Your task to perform on an android device: turn off improve location accuracy Image 0: 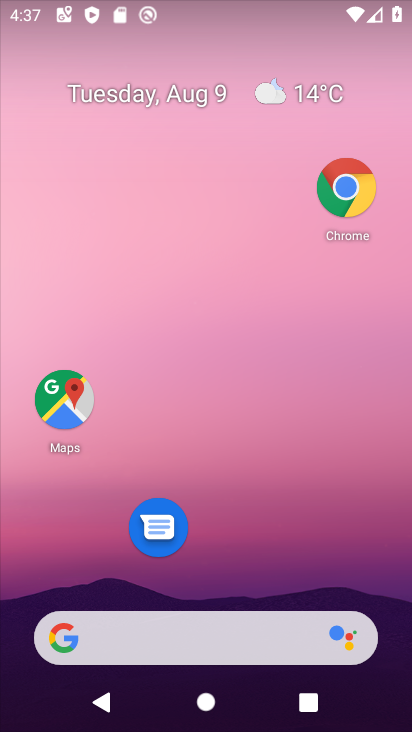
Step 0: drag from (214, 586) to (233, 235)
Your task to perform on an android device: turn off improve location accuracy Image 1: 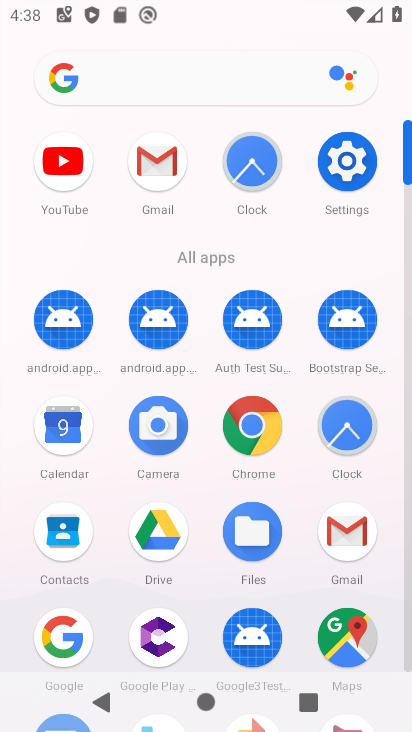
Step 1: click (233, 235)
Your task to perform on an android device: turn off improve location accuracy Image 2: 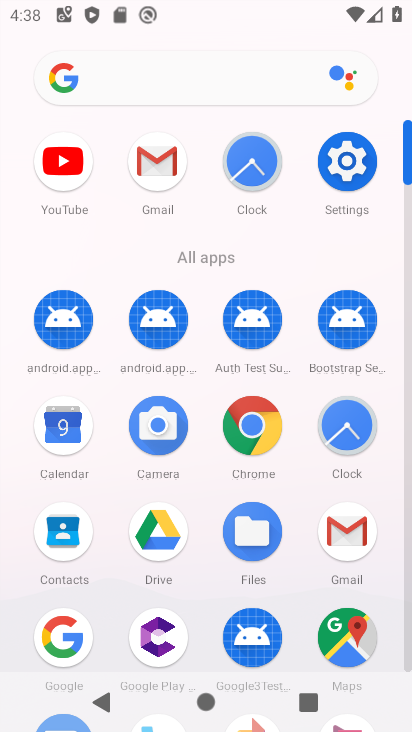
Step 2: click (362, 145)
Your task to perform on an android device: turn off improve location accuracy Image 3: 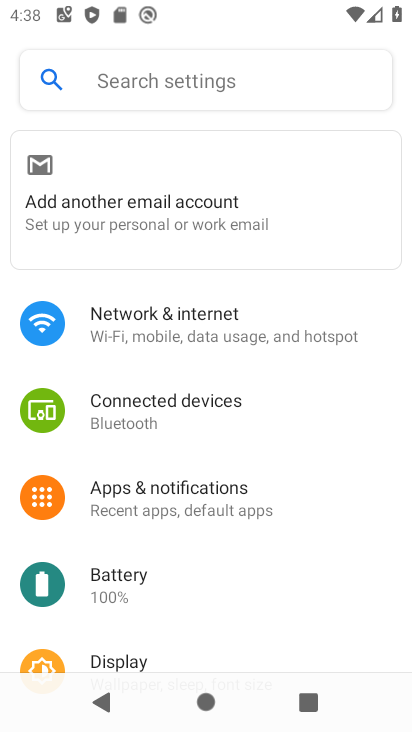
Step 3: drag from (138, 616) to (111, 187)
Your task to perform on an android device: turn off improve location accuracy Image 4: 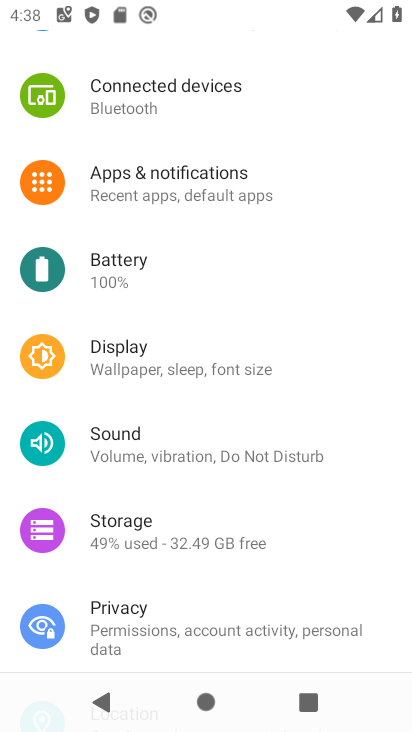
Step 4: click (247, 240)
Your task to perform on an android device: turn off improve location accuracy Image 5: 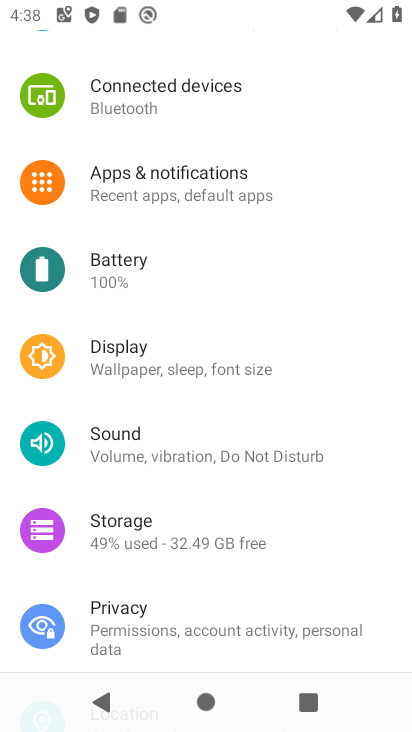
Step 5: drag from (189, 610) to (255, 142)
Your task to perform on an android device: turn off improve location accuracy Image 6: 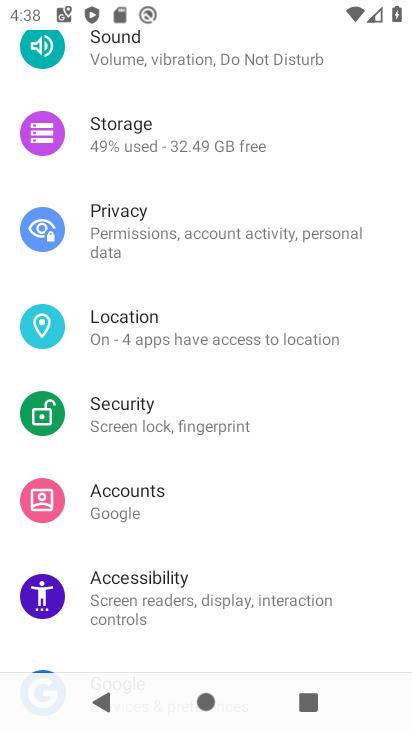
Step 6: drag from (225, 615) to (262, 185)
Your task to perform on an android device: turn off improve location accuracy Image 7: 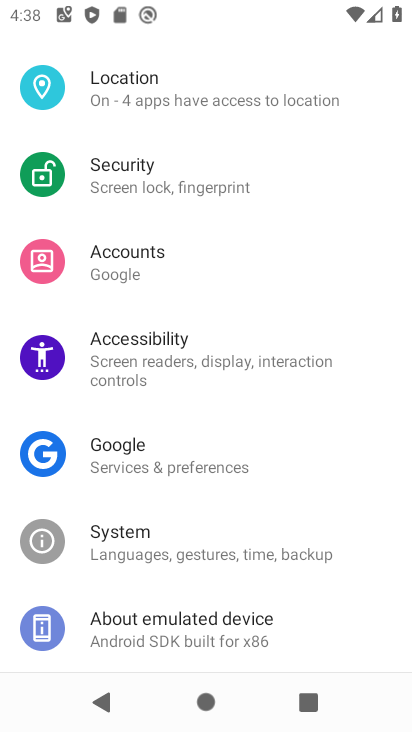
Step 7: click (256, 102)
Your task to perform on an android device: turn off improve location accuracy Image 8: 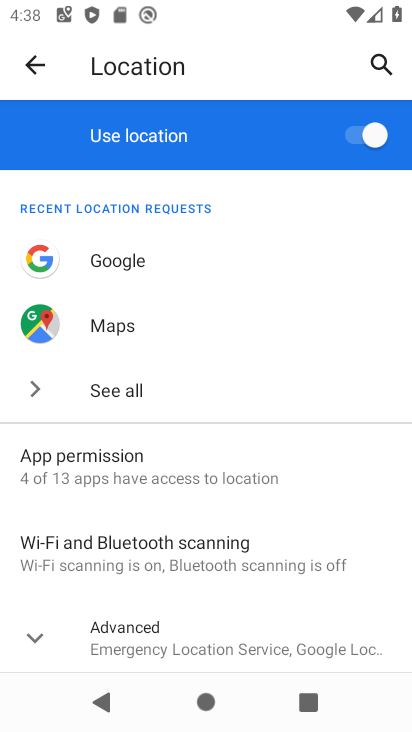
Step 8: click (177, 640)
Your task to perform on an android device: turn off improve location accuracy Image 9: 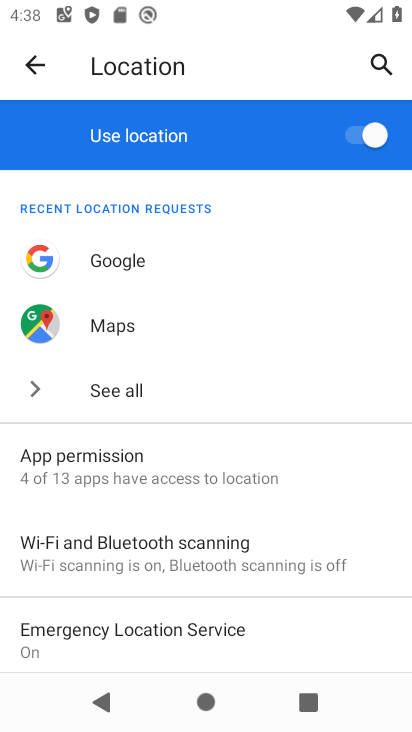
Step 9: drag from (177, 640) to (189, 211)
Your task to perform on an android device: turn off improve location accuracy Image 10: 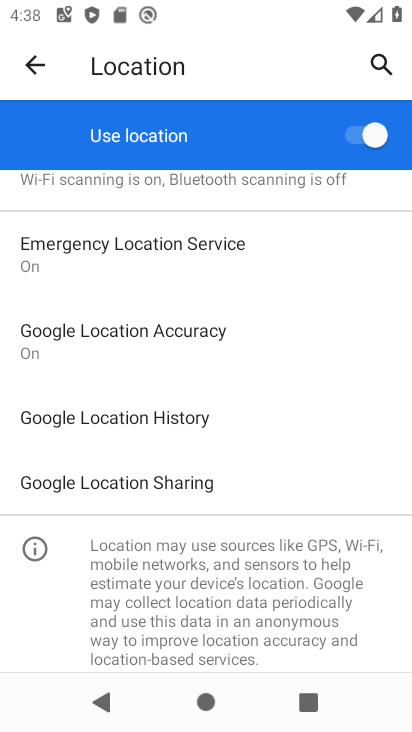
Step 10: click (207, 326)
Your task to perform on an android device: turn off improve location accuracy Image 11: 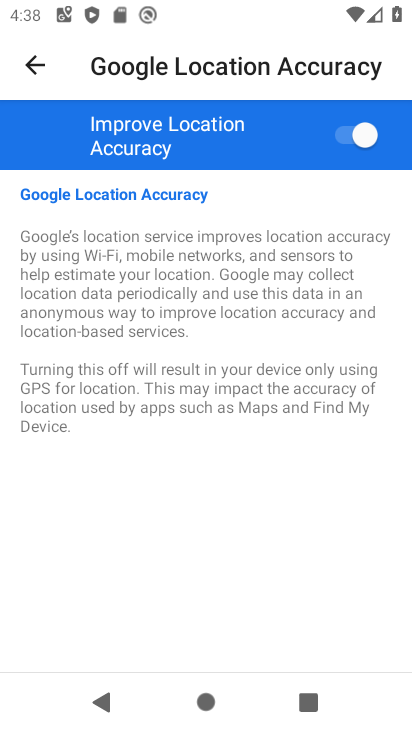
Step 11: click (360, 140)
Your task to perform on an android device: turn off improve location accuracy Image 12: 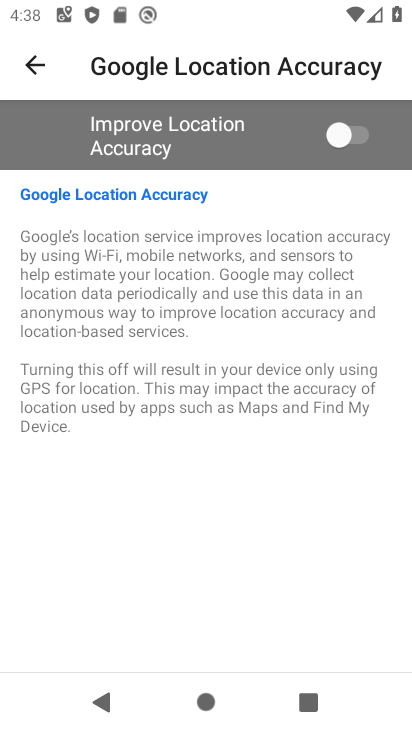
Step 12: task complete